Your task to perform on an android device: Open ESPN.com Image 0: 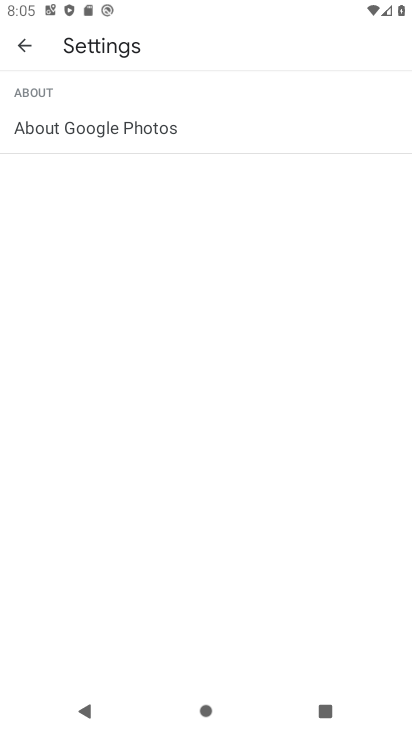
Step 0: press home button
Your task to perform on an android device: Open ESPN.com Image 1: 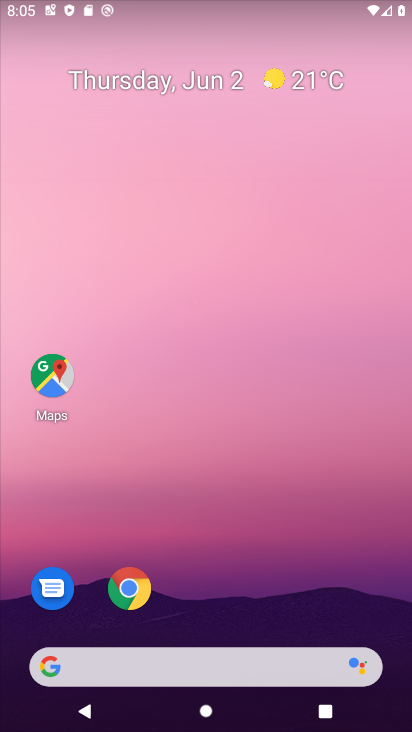
Step 1: click (120, 603)
Your task to perform on an android device: Open ESPN.com Image 2: 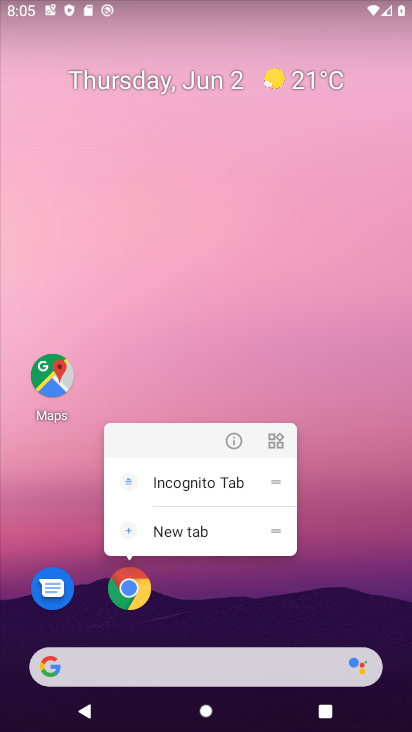
Step 2: click (135, 602)
Your task to perform on an android device: Open ESPN.com Image 3: 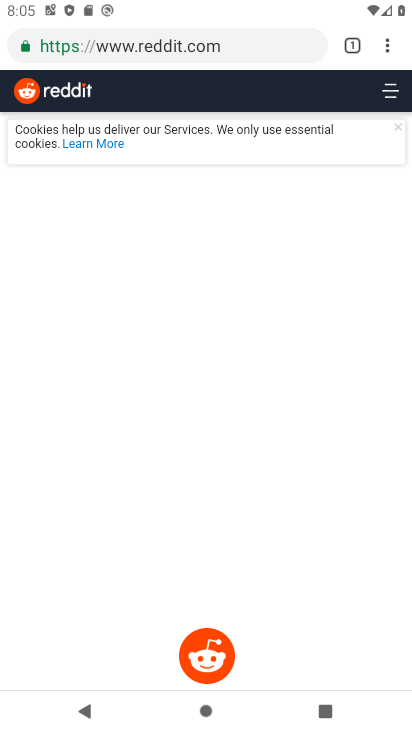
Step 3: click (188, 50)
Your task to perform on an android device: Open ESPN.com Image 4: 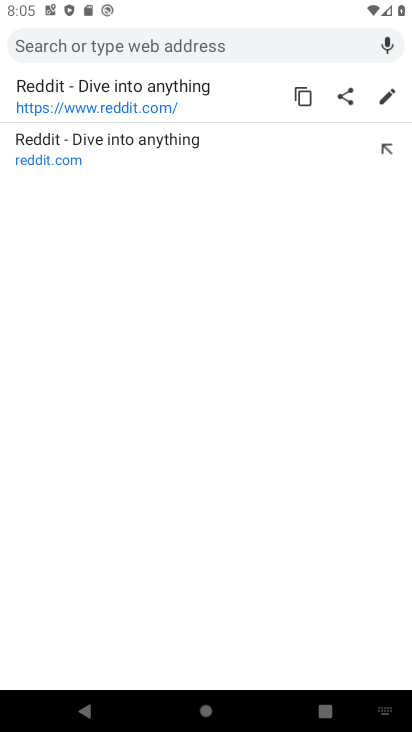
Step 4: type "espn.com"
Your task to perform on an android device: Open ESPN.com Image 5: 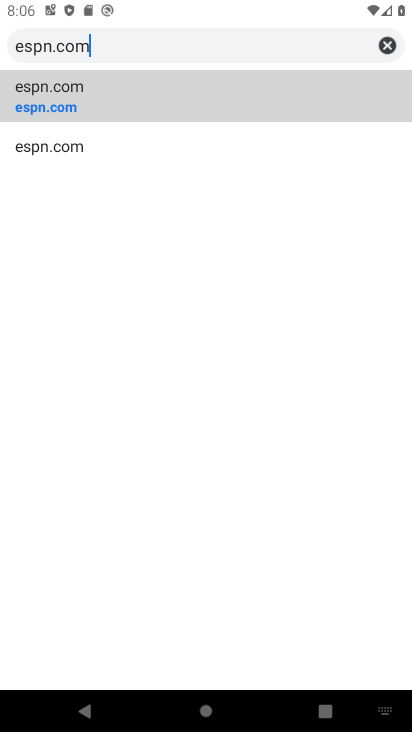
Step 5: click (117, 88)
Your task to perform on an android device: Open ESPN.com Image 6: 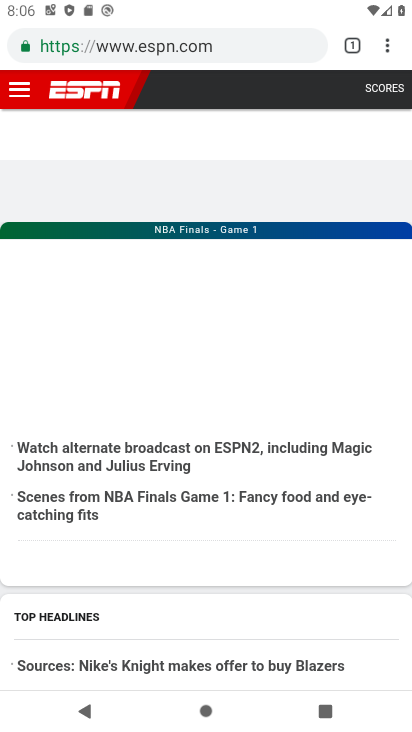
Step 6: task complete